Your task to perform on an android device: Go to internet settings Image 0: 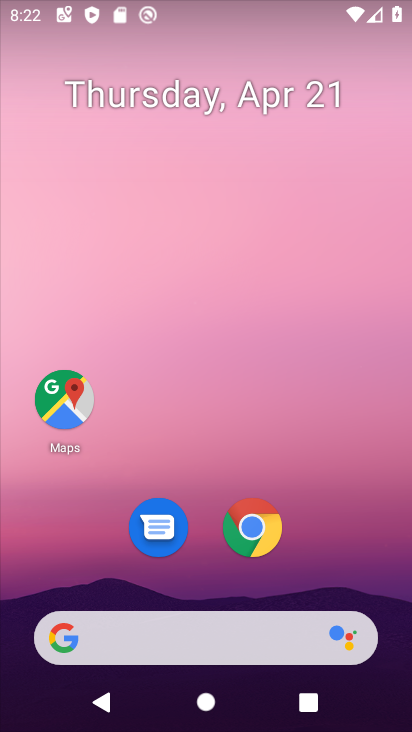
Step 0: drag from (302, 584) to (347, 148)
Your task to perform on an android device: Go to internet settings Image 1: 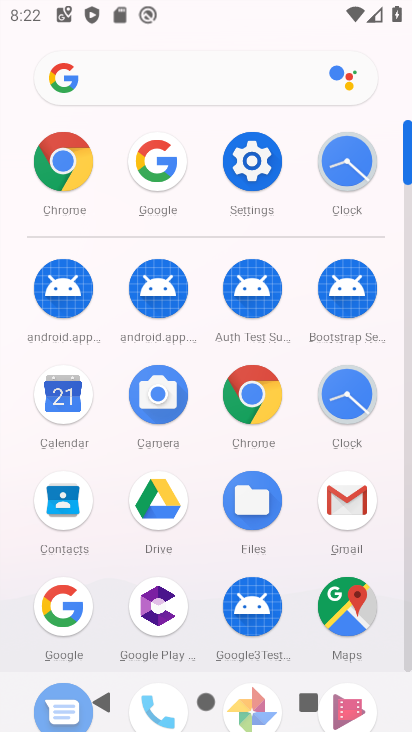
Step 1: click (266, 169)
Your task to perform on an android device: Go to internet settings Image 2: 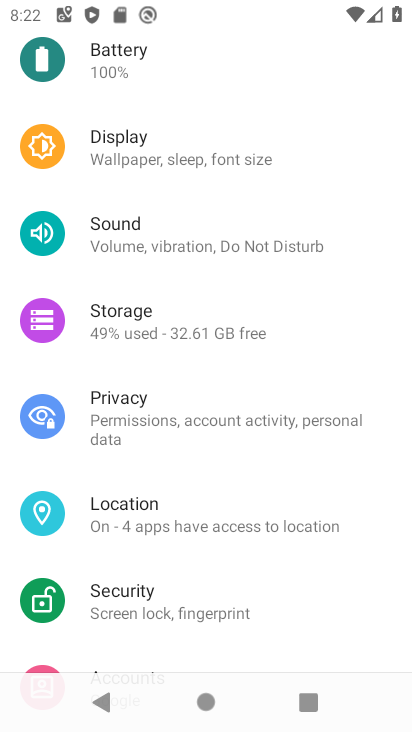
Step 2: drag from (257, 218) to (218, 427)
Your task to perform on an android device: Go to internet settings Image 3: 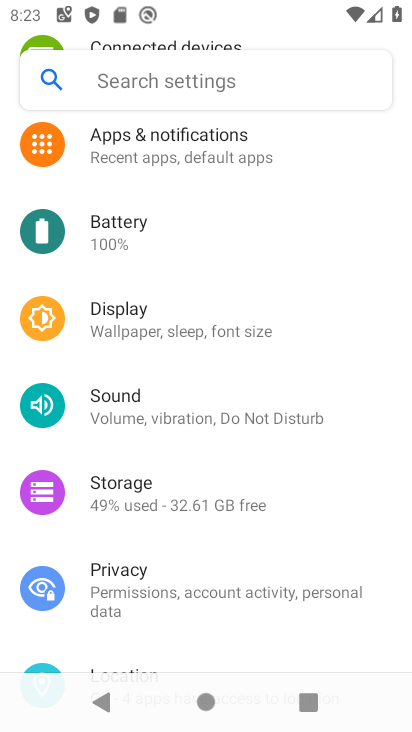
Step 3: drag from (208, 189) to (257, 561)
Your task to perform on an android device: Go to internet settings Image 4: 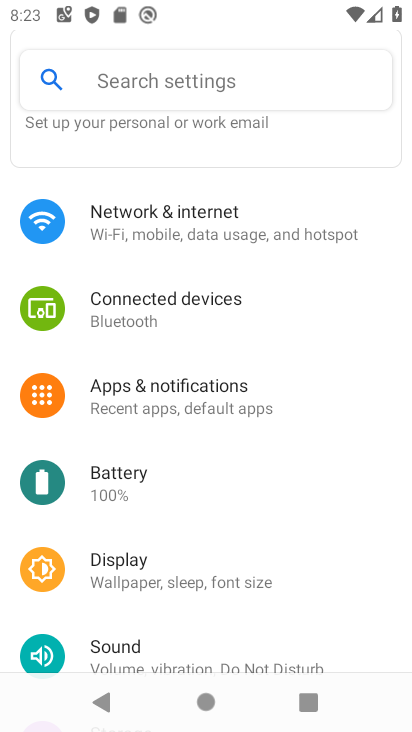
Step 4: click (224, 223)
Your task to perform on an android device: Go to internet settings Image 5: 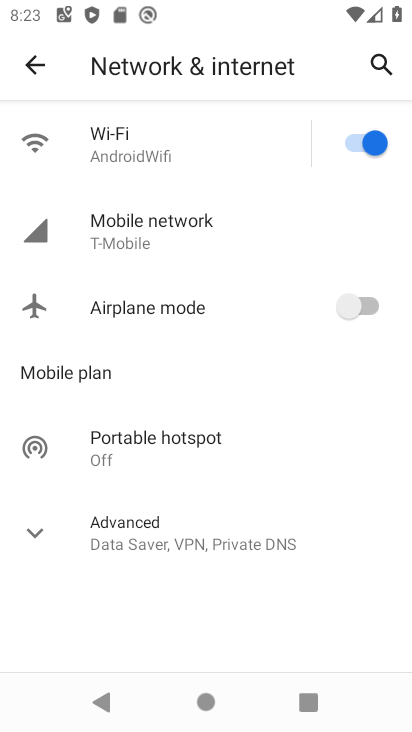
Step 5: click (175, 222)
Your task to perform on an android device: Go to internet settings Image 6: 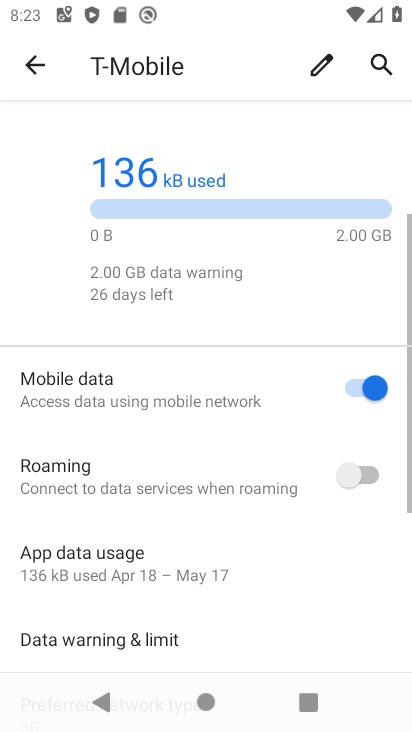
Step 6: task complete